Your task to perform on an android device: check google app version Image 0: 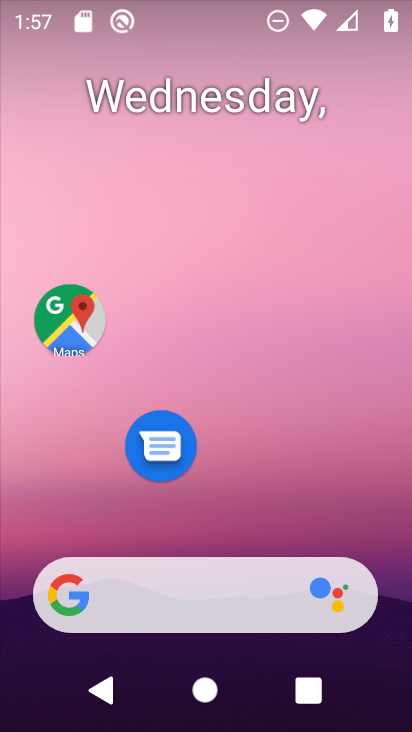
Step 0: drag from (248, 513) to (342, 36)
Your task to perform on an android device: check google app version Image 1: 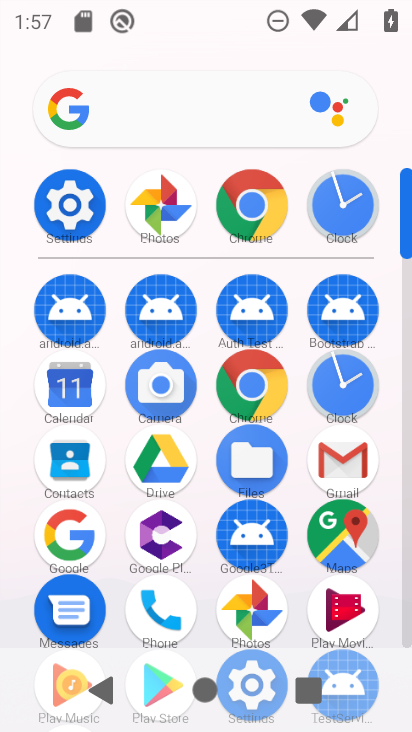
Step 1: click (255, 227)
Your task to perform on an android device: check google app version Image 2: 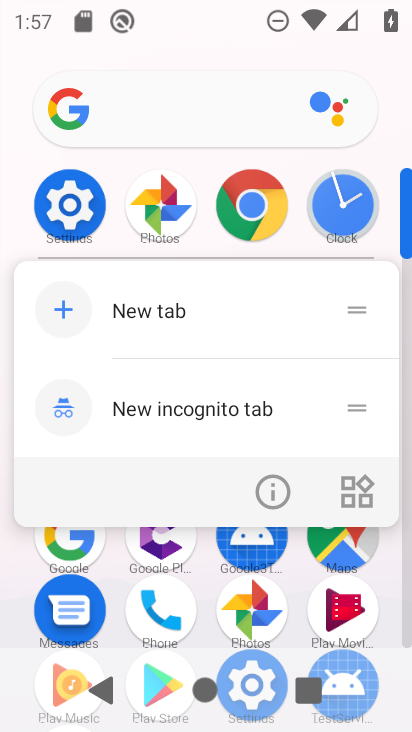
Step 2: click (269, 498)
Your task to perform on an android device: check google app version Image 3: 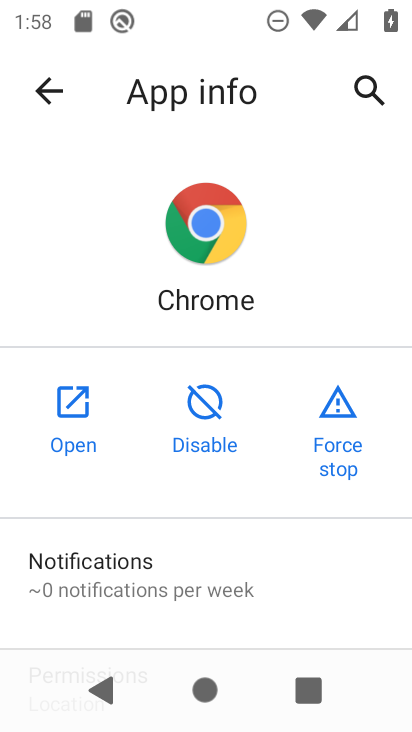
Step 3: task complete